Your task to perform on an android device: Go to notification settings Image 0: 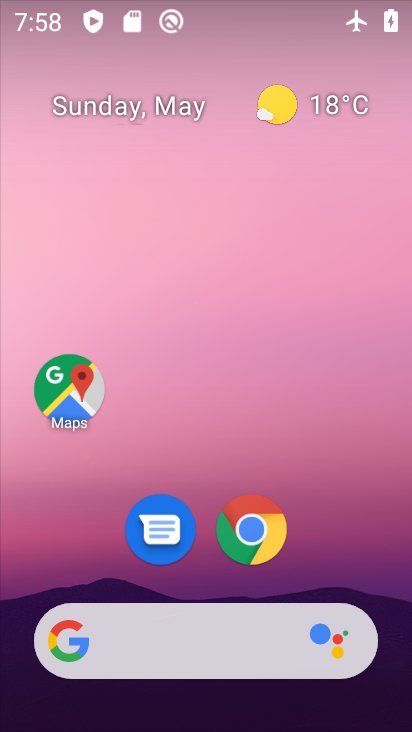
Step 0: drag from (337, 587) to (359, 9)
Your task to perform on an android device: Go to notification settings Image 1: 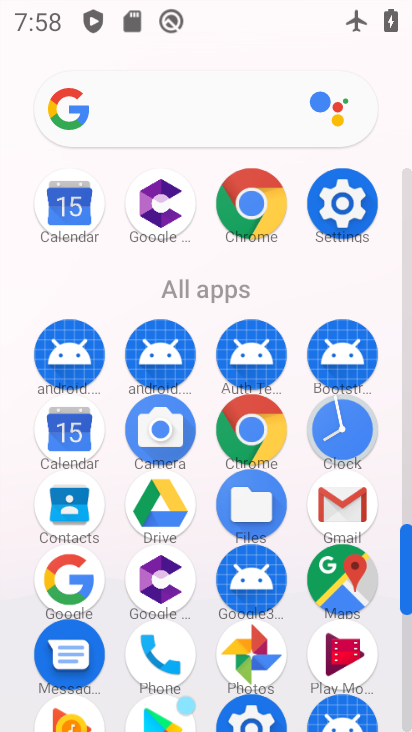
Step 1: click (339, 200)
Your task to perform on an android device: Go to notification settings Image 2: 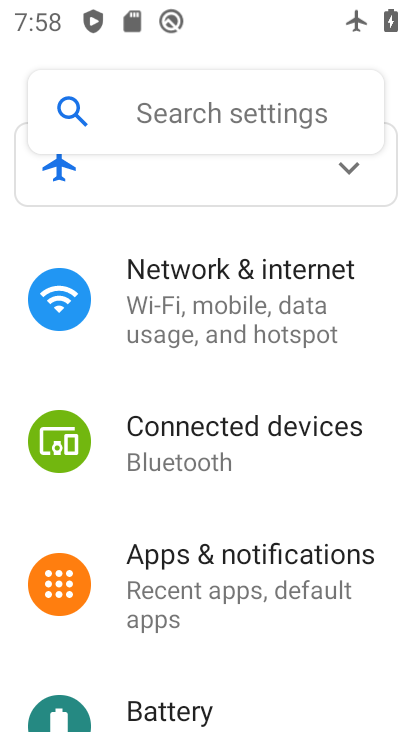
Step 2: click (176, 546)
Your task to perform on an android device: Go to notification settings Image 3: 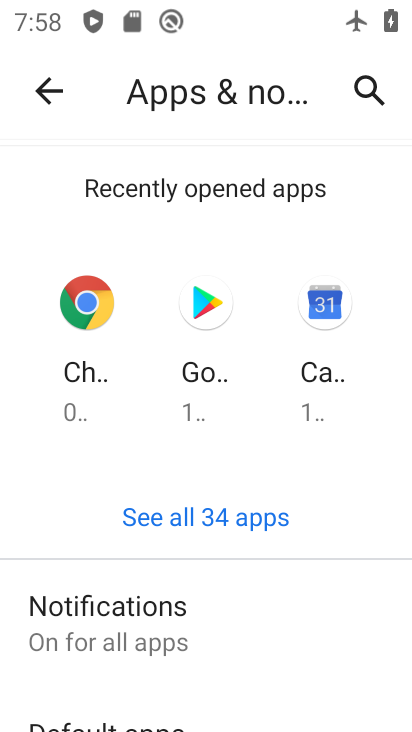
Step 3: task complete